Your task to perform on an android device: View the shopping cart on amazon. Search for sony triple a on amazon, select the first entry, add it to the cart, then select checkout. Image 0: 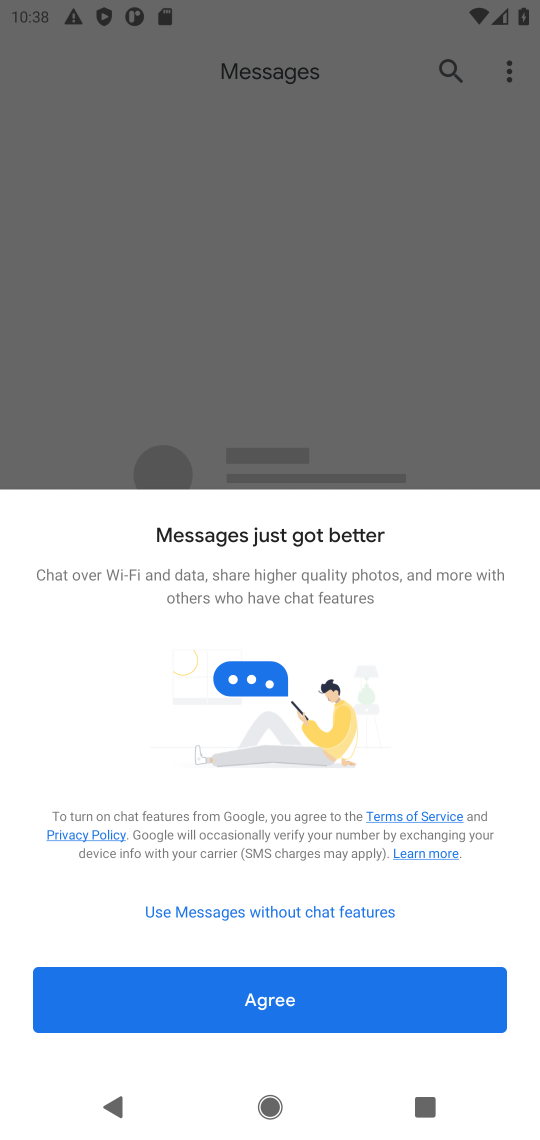
Step 0: press home button
Your task to perform on an android device: View the shopping cart on amazon. Search for sony triple a on amazon, select the first entry, add it to the cart, then select checkout. Image 1: 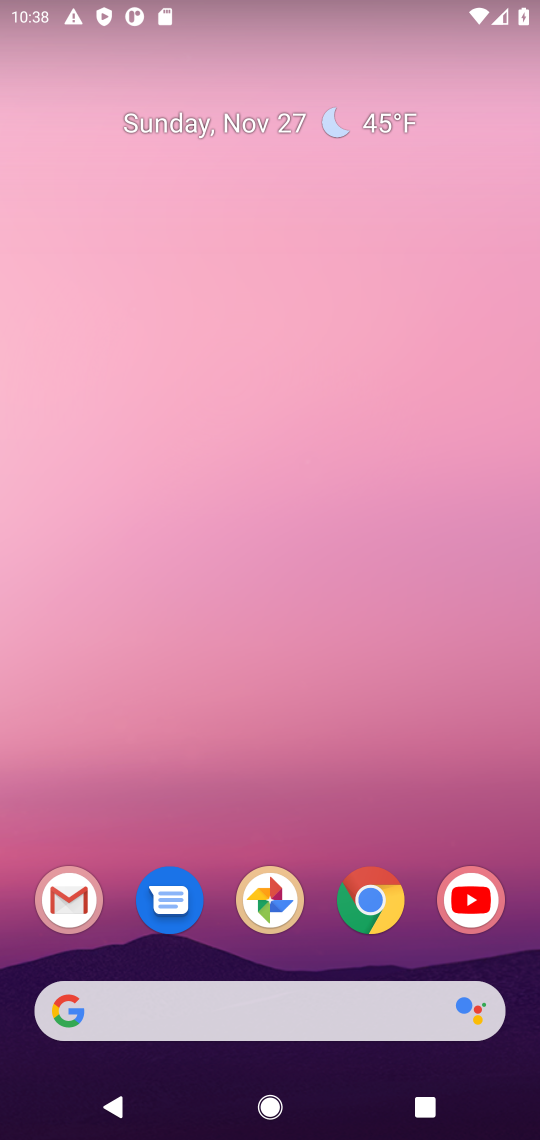
Step 1: click (384, 898)
Your task to perform on an android device: View the shopping cart on amazon. Search for sony triple a on amazon, select the first entry, add it to the cart, then select checkout. Image 2: 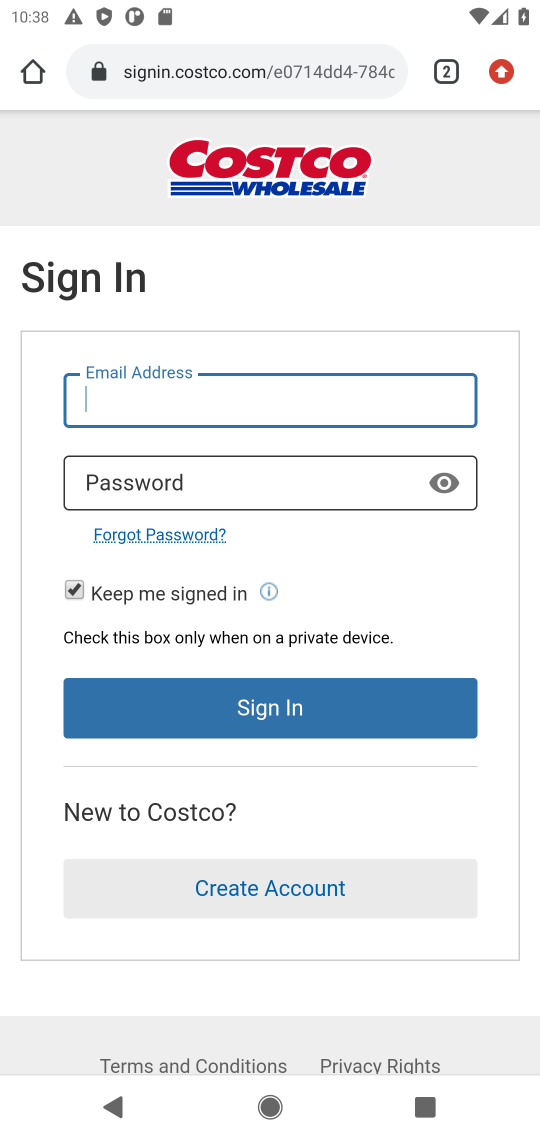
Step 2: click (239, 86)
Your task to perform on an android device: View the shopping cart on amazon. Search for sony triple a on amazon, select the first entry, add it to the cart, then select checkout. Image 3: 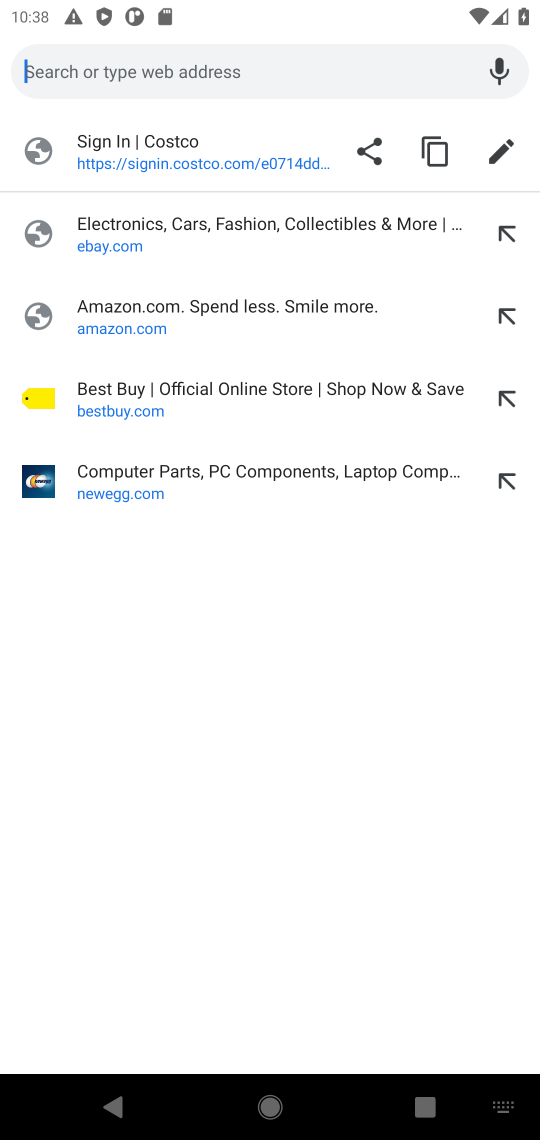
Step 3: click (108, 322)
Your task to perform on an android device: View the shopping cart on amazon. Search for sony triple a on amazon, select the first entry, add it to the cart, then select checkout. Image 4: 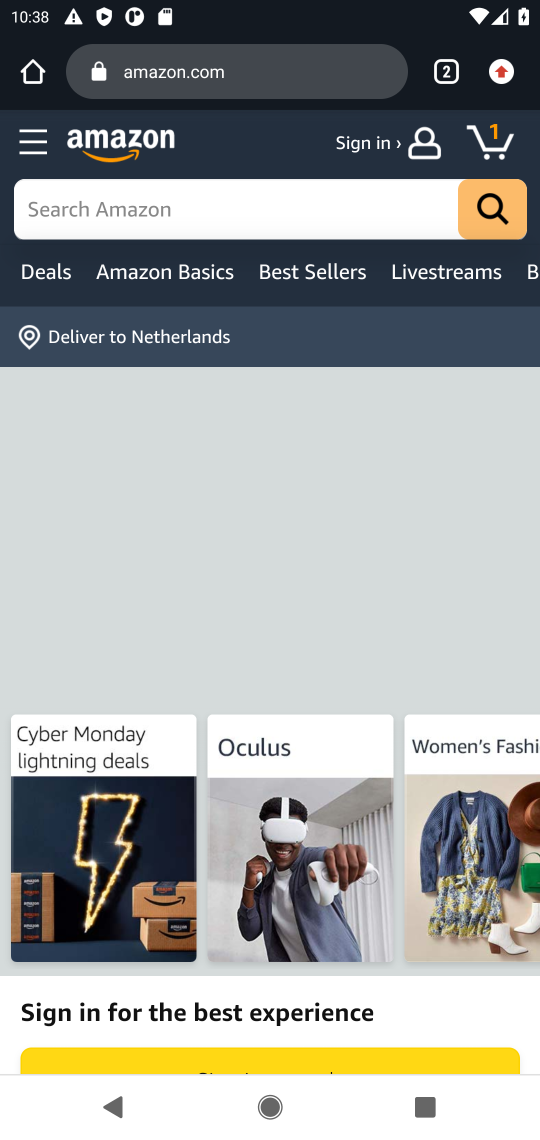
Step 4: click (495, 147)
Your task to perform on an android device: View the shopping cart on amazon. Search for sony triple a on amazon, select the first entry, add it to the cart, then select checkout. Image 5: 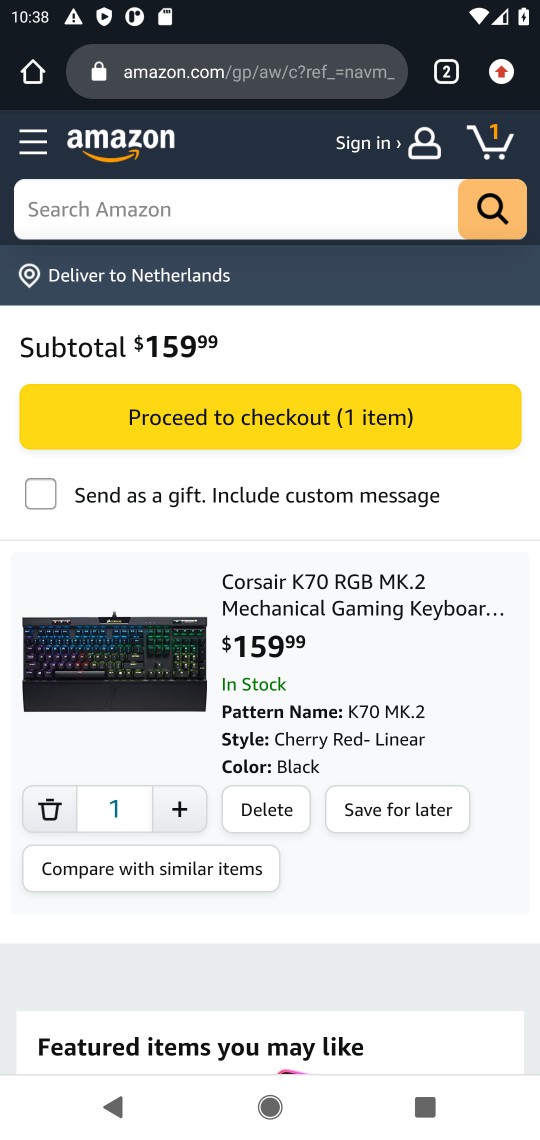
Step 5: click (231, 211)
Your task to perform on an android device: View the shopping cart on amazon. Search for sony triple a on amazon, select the first entry, add it to the cart, then select checkout. Image 6: 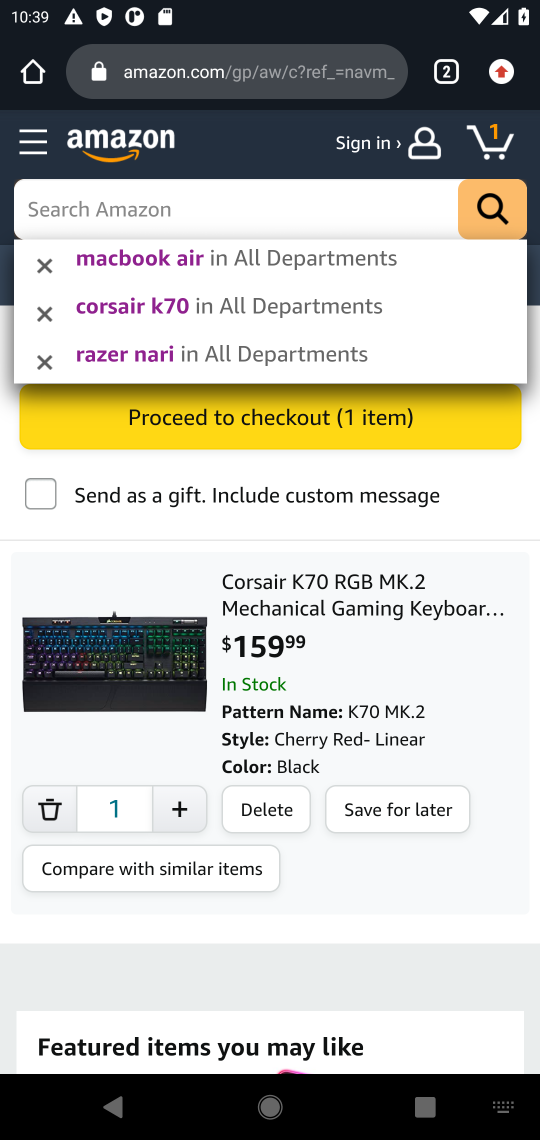
Step 6: type "sony triple a"
Your task to perform on an android device: View the shopping cart on amazon. Search for sony triple a on amazon, select the first entry, add it to the cart, then select checkout. Image 7: 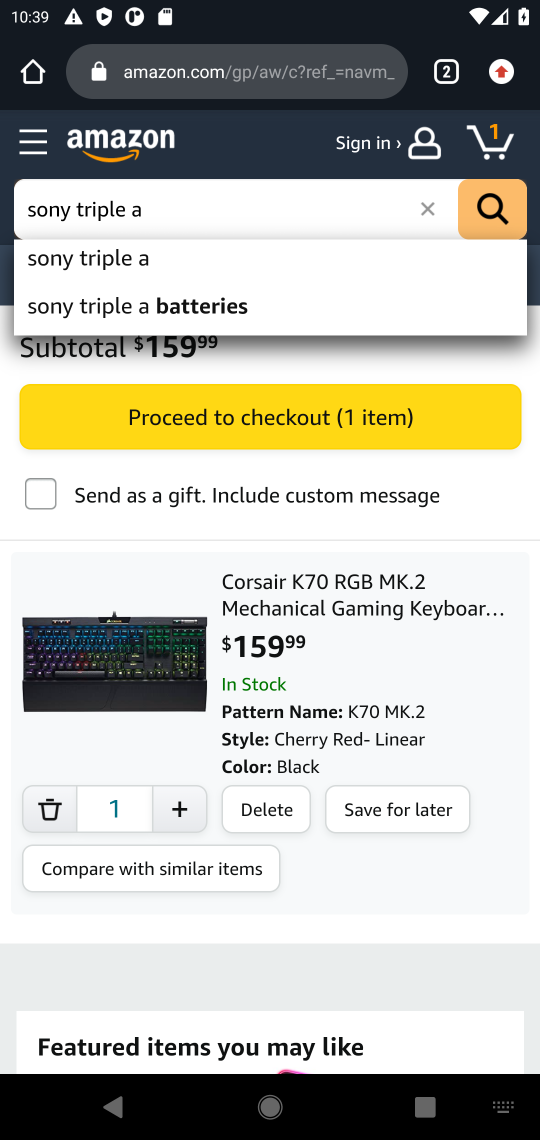
Step 7: click (114, 264)
Your task to perform on an android device: View the shopping cart on amazon. Search for sony triple a on amazon, select the first entry, add it to the cart, then select checkout. Image 8: 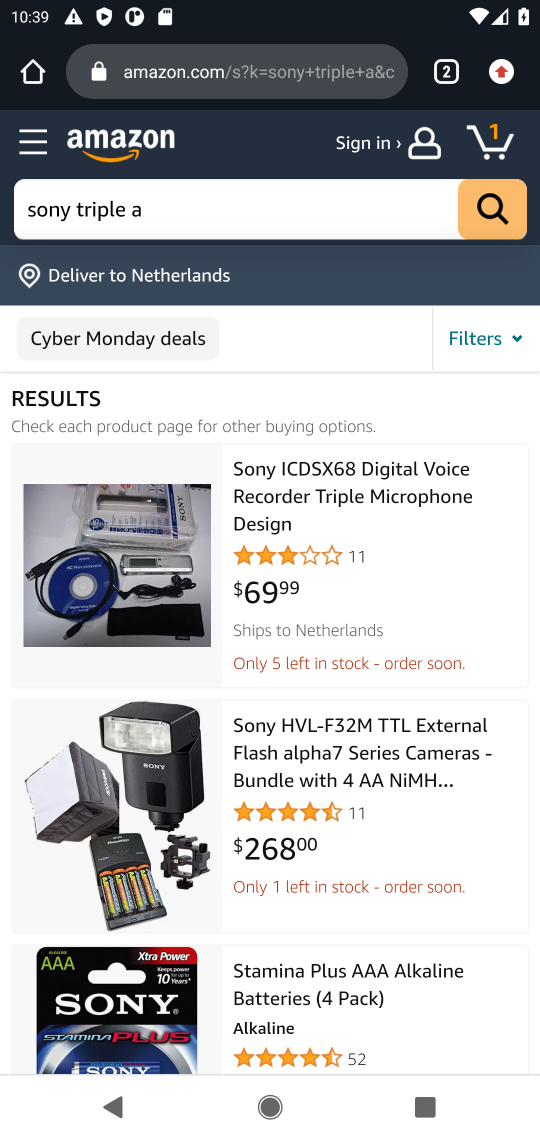
Step 8: task complete